Your task to perform on an android device: Go to Amazon Image 0: 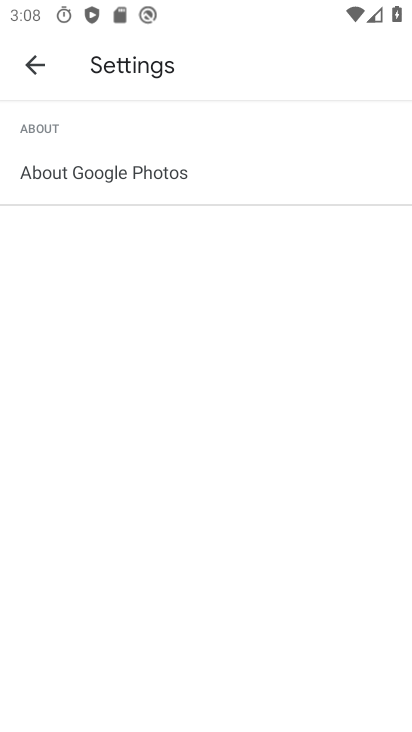
Step 0: press home button
Your task to perform on an android device: Go to Amazon Image 1: 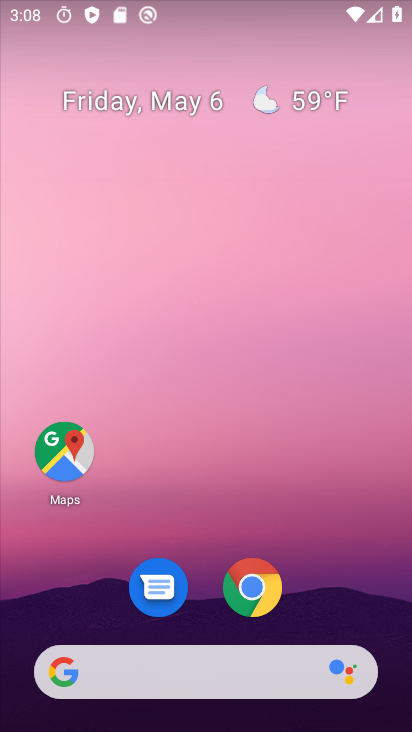
Step 1: drag from (227, 478) to (235, 10)
Your task to perform on an android device: Go to Amazon Image 2: 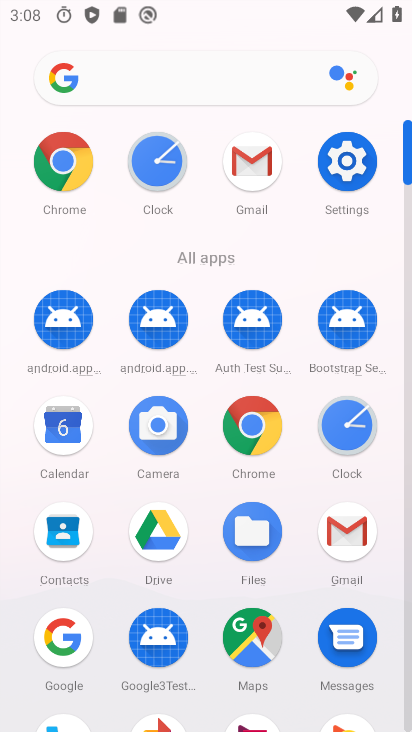
Step 2: click (71, 161)
Your task to perform on an android device: Go to Amazon Image 3: 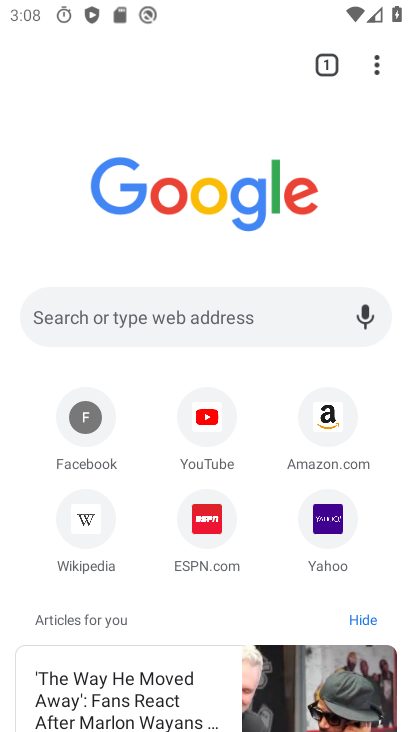
Step 3: click (341, 415)
Your task to perform on an android device: Go to Amazon Image 4: 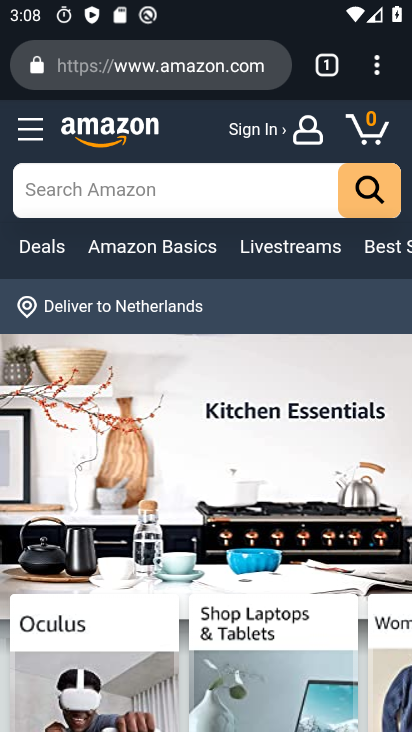
Step 4: task complete